Your task to perform on an android device: search for starred emails in the gmail app Image 0: 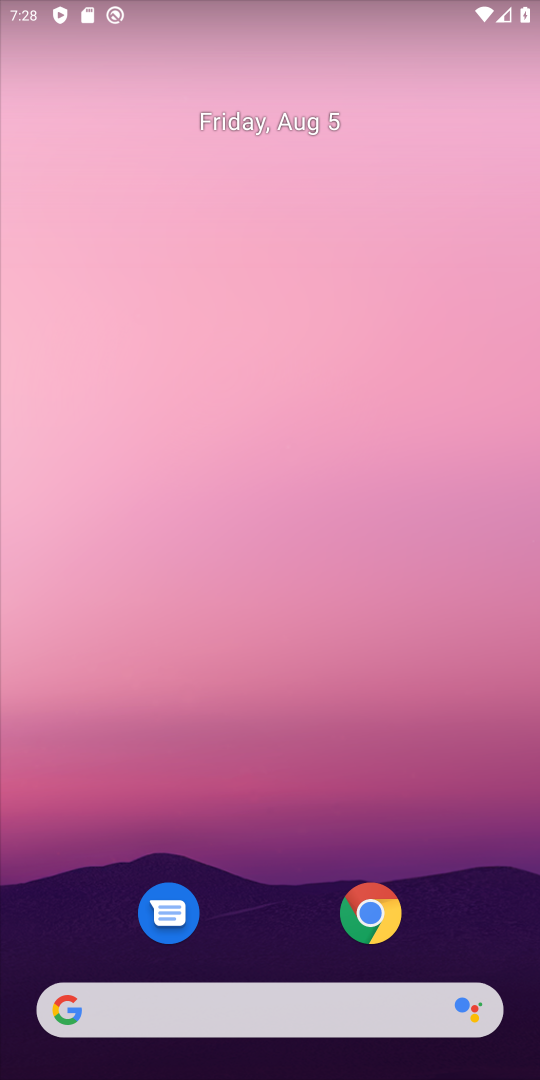
Step 0: press home button
Your task to perform on an android device: search for starred emails in the gmail app Image 1: 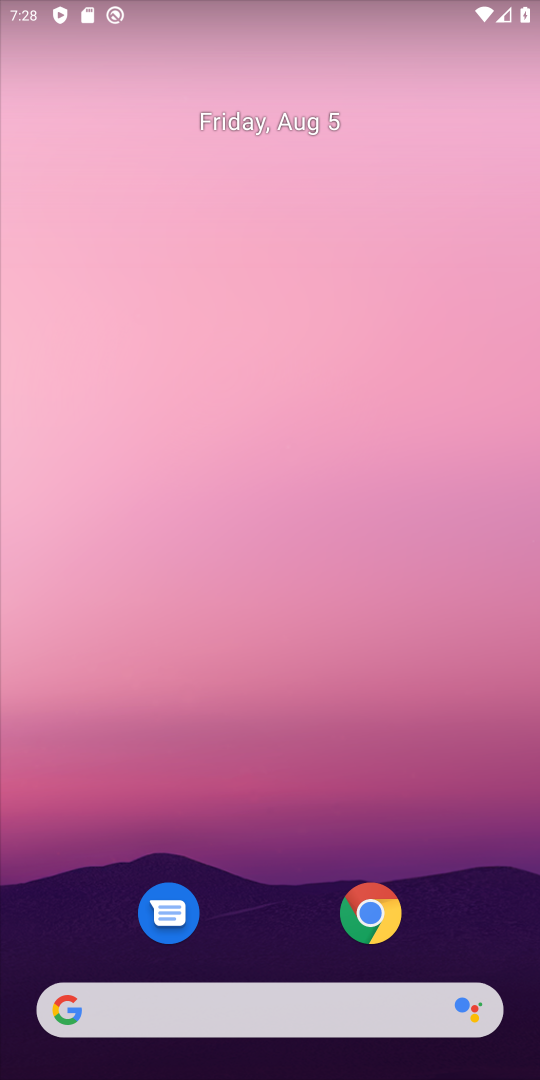
Step 1: drag from (258, 942) to (313, 323)
Your task to perform on an android device: search for starred emails in the gmail app Image 2: 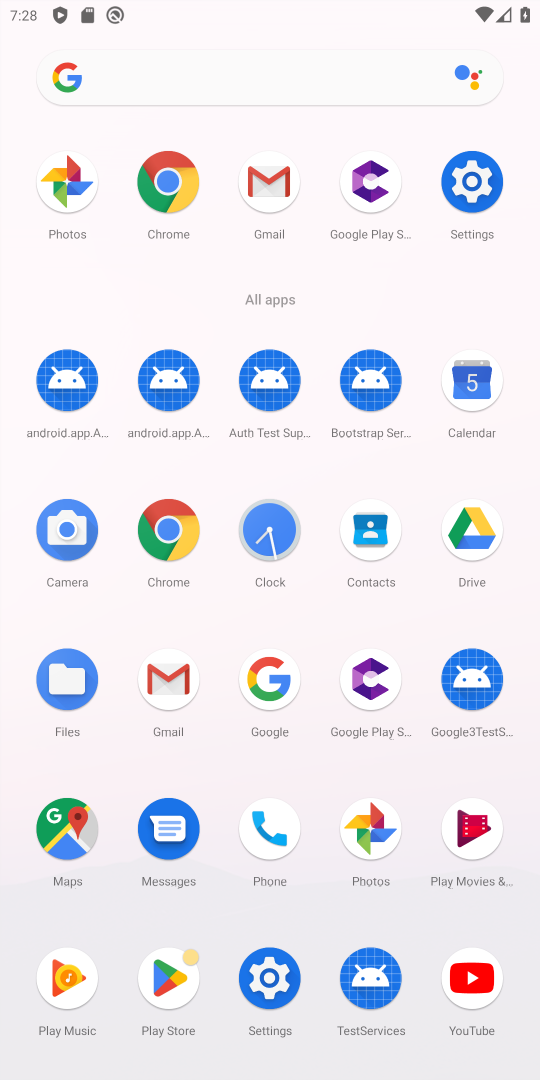
Step 2: click (157, 700)
Your task to perform on an android device: search for starred emails in the gmail app Image 3: 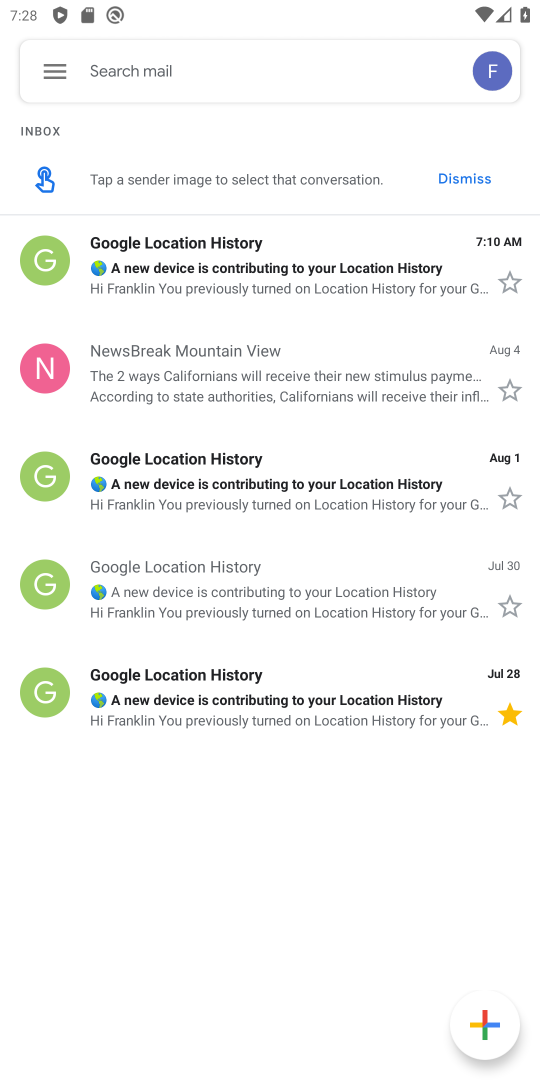
Step 3: click (53, 62)
Your task to perform on an android device: search for starred emails in the gmail app Image 4: 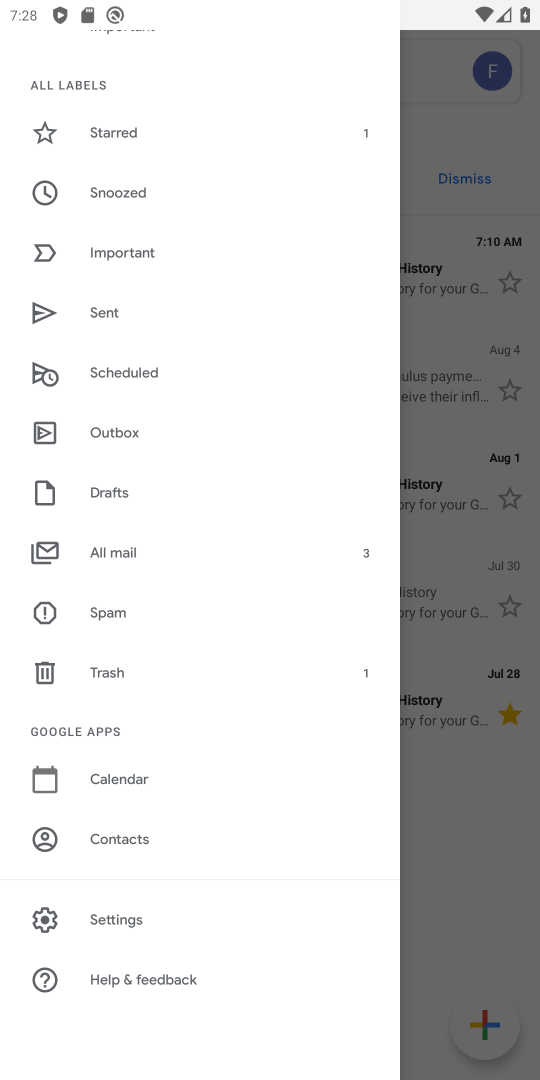
Step 4: drag from (244, 779) to (275, 563)
Your task to perform on an android device: search for starred emails in the gmail app Image 5: 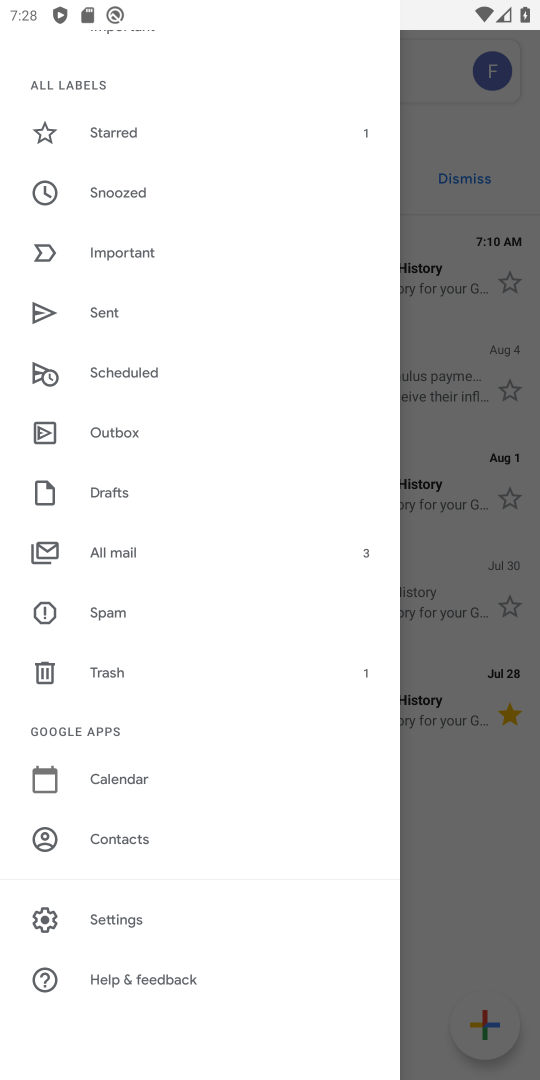
Step 5: drag from (282, 362) to (284, 635)
Your task to perform on an android device: search for starred emails in the gmail app Image 6: 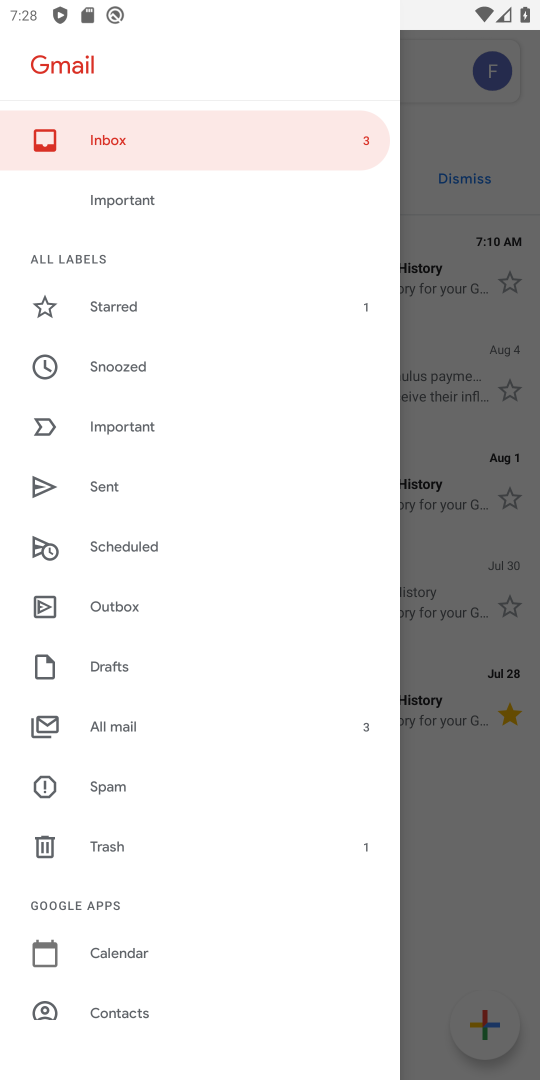
Step 6: click (142, 302)
Your task to perform on an android device: search for starred emails in the gmail app Image 7: 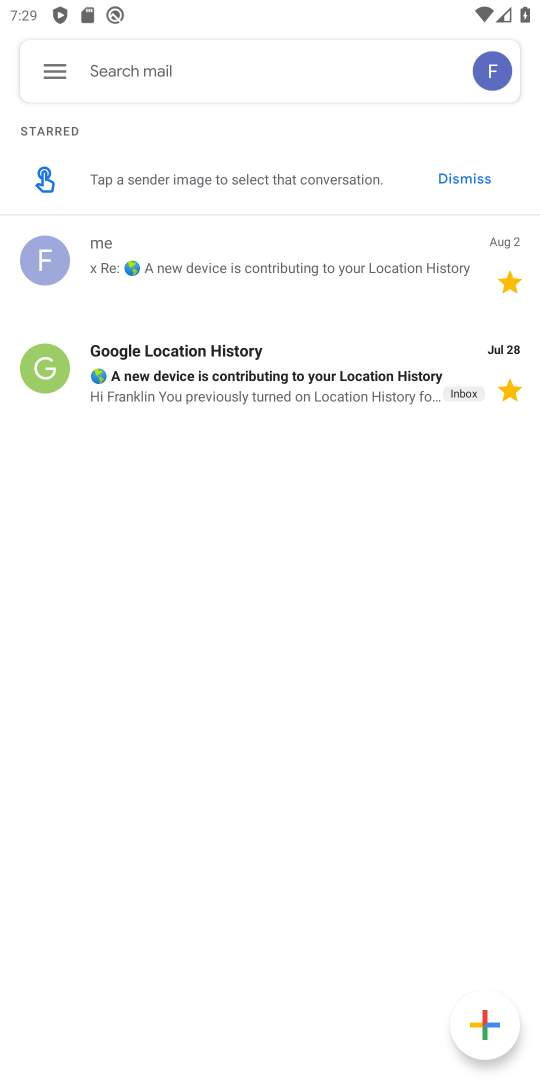
Step 7: task complete